Your task to perform on an android device: Open the map Image 0: 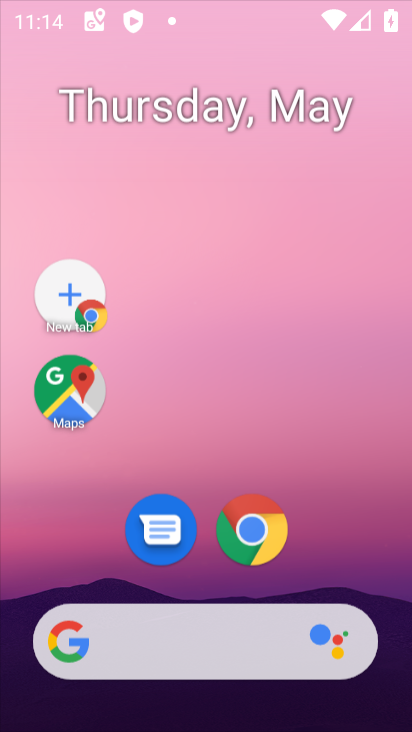
Step 0: click (242, 170)
Your task to perform on an android device: Open the map Image 1: 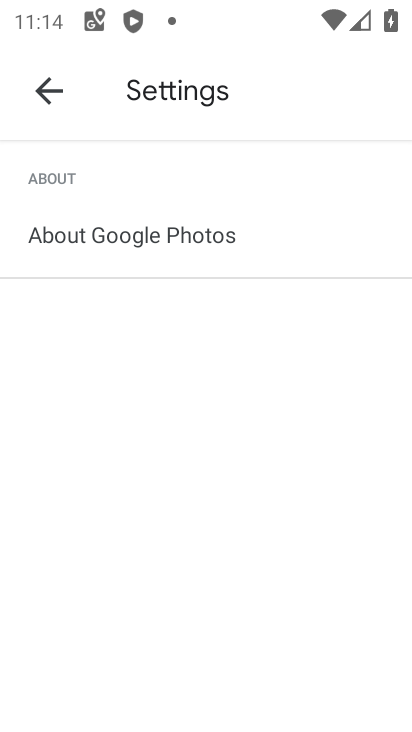
Step 1: click (57, 92)
Your task to perform on an android device: Open the map Image 2: 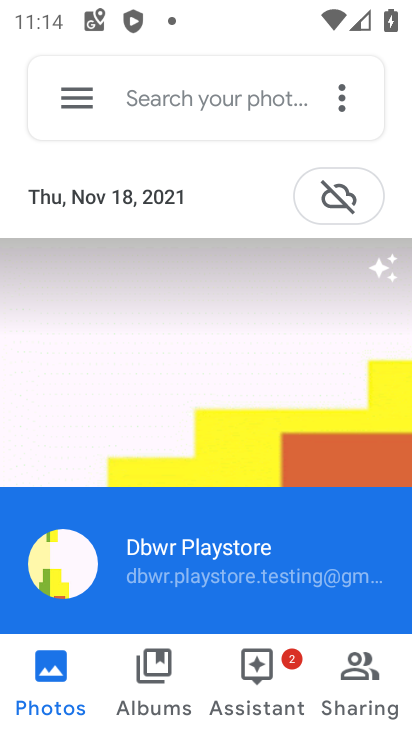
Step 2: press back button
Your task to perform on an android device: Open the map Image 3: 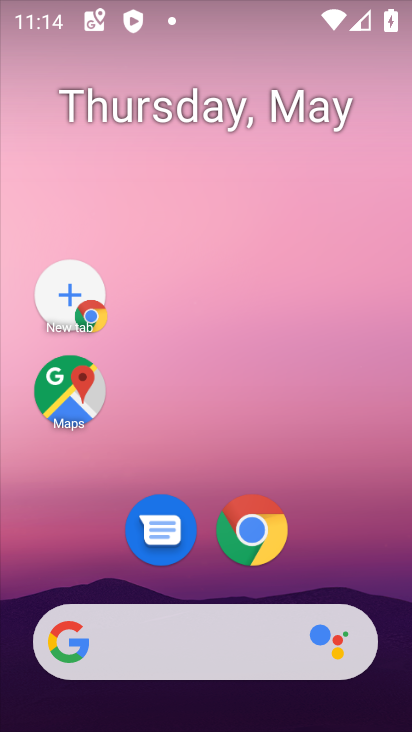
Step 3: drag from (256, 728) to (158, 66)
Your task to perform on an android device: Open the map Image 4: 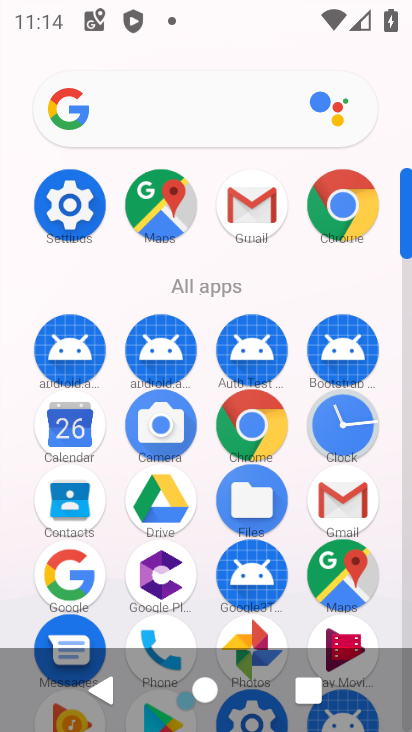
Step 4: click (323, 577)
Your task to perform on an android device: Open the map Image 5: 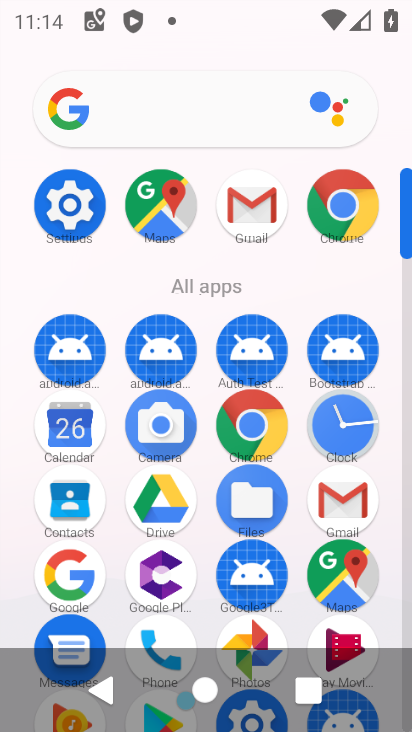
Step 5: click (323, 577)
Your task to perform on an android device: Open the map Image 6: 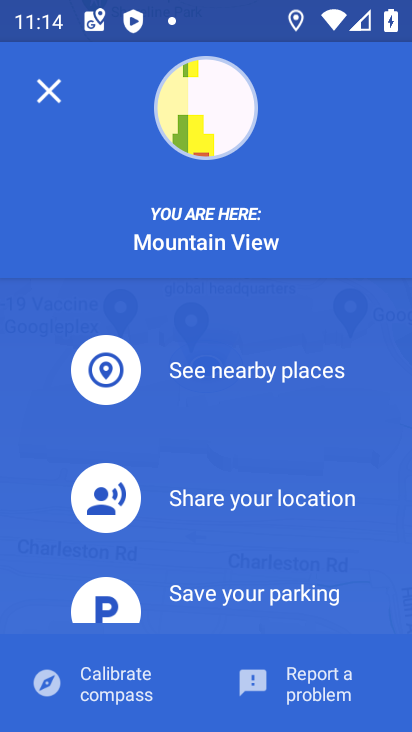
Step 6: press back button
Your task to perform on an android device: Open the map Image 7: 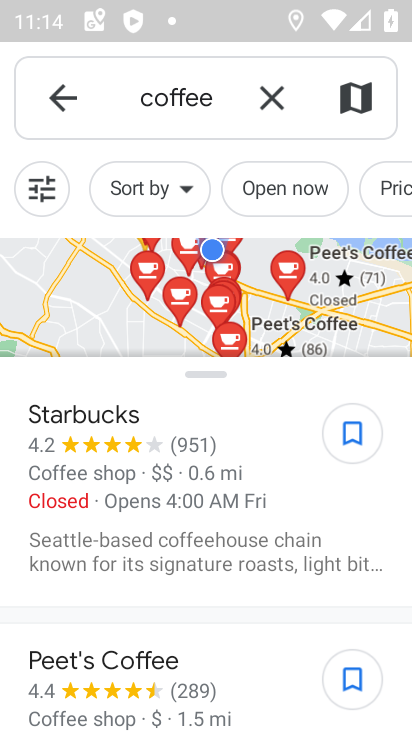
Step 7: click (65, 87)
Your task to perform on an android device: Open the map Image 8: 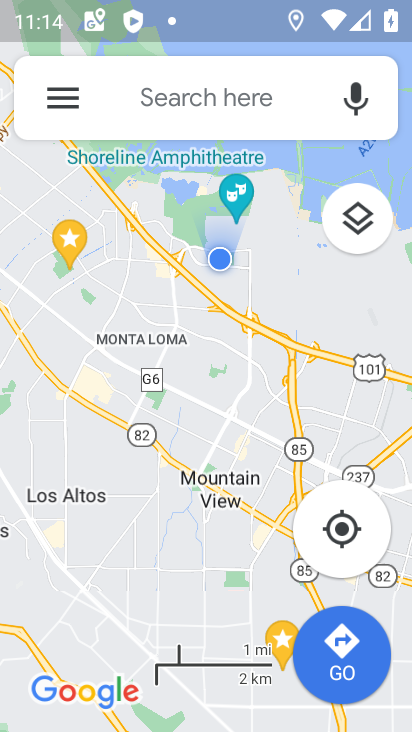
Step 8: task complete